Your task to perform on an android device: snooze an email in the gmail app Image 0: 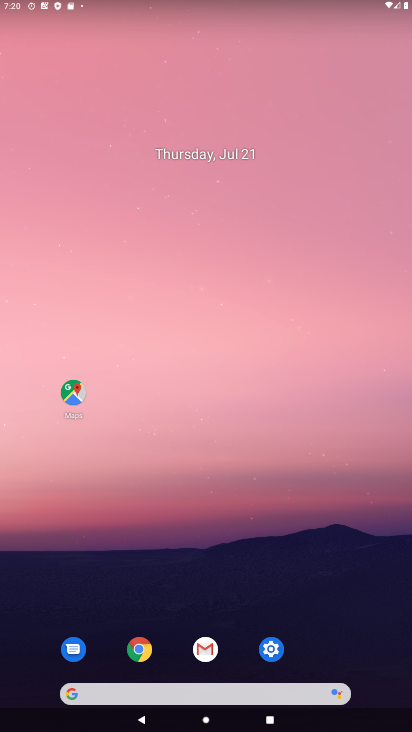
Step 0: click (200, 651)
Your task to perform on an android device: snooze an email in the gmail app Image 1: 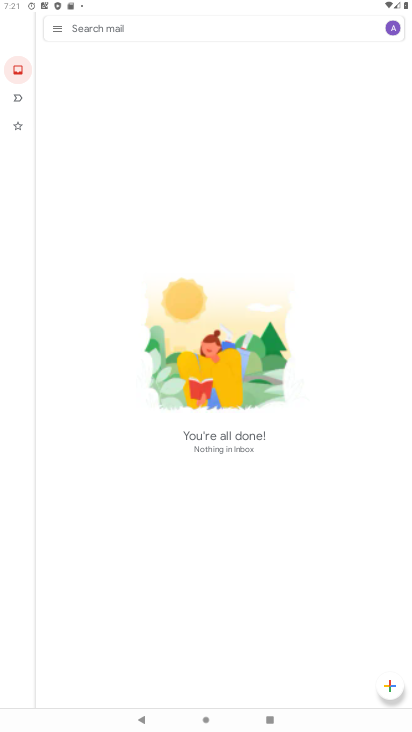
Step 1: click (53, 26)
Your task to perform on an android device: snooze an email in the gmail app Image 2: 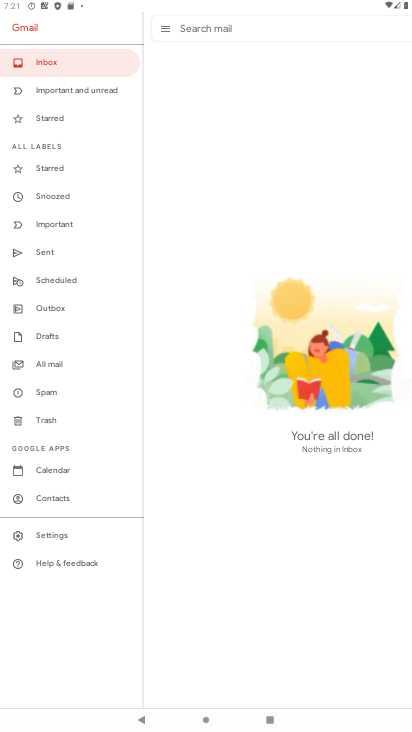
Step 2: click (57, 192)
Your task to perform on an android device: snooze an email in the gmail app Image 3: 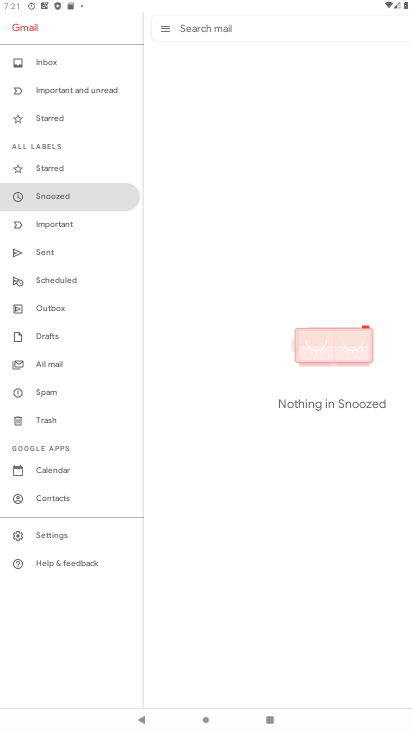
Step 3: task complete